Your task to perform on an android device: turn pop-ups on in chrome Image 0: 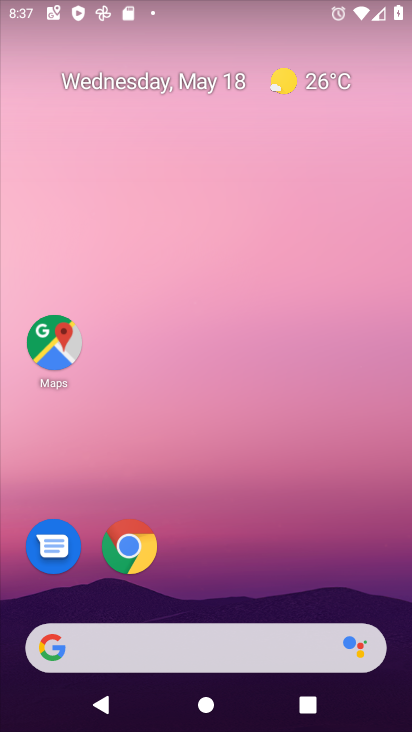
Step 0: drag from (352, 587) to (142, 0)
Your task to perform on an android device: turn pop-ups on in chrome Image 1: 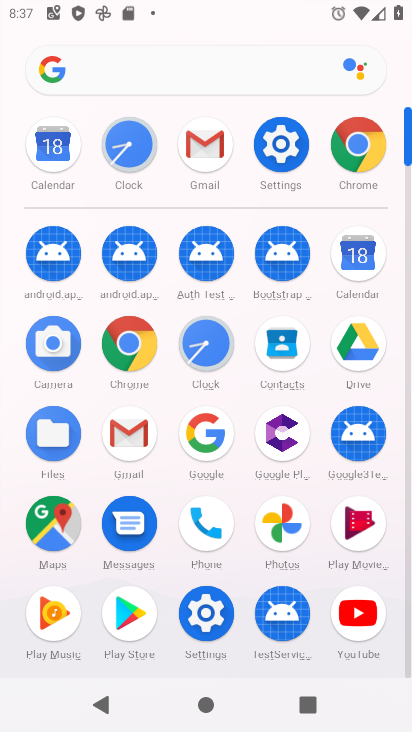
Step 1: click (129, 336)
Your task to perform on an android device: turn pop-ups on in chrome Image 2: 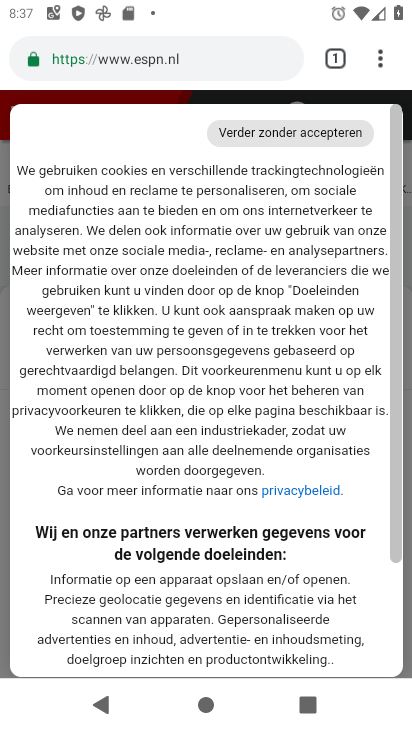
Step 2: press back button
Your task to perform on an android device: turn pop-ups on in chrome Image 3: 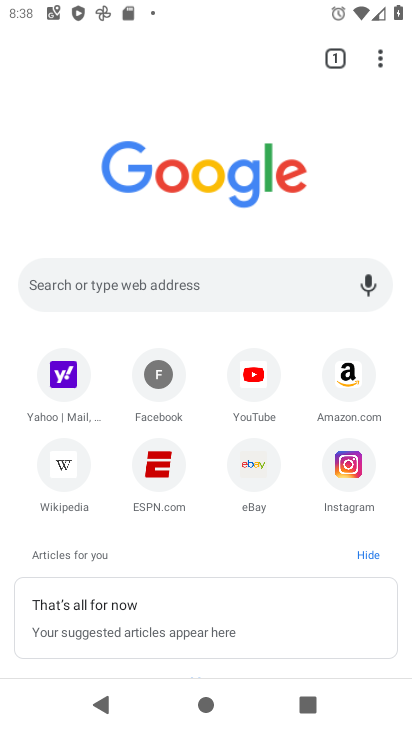
Step 3: click (378, 52)
Your task to perform on an android device: turn pop-ups on in chrome Image 4: 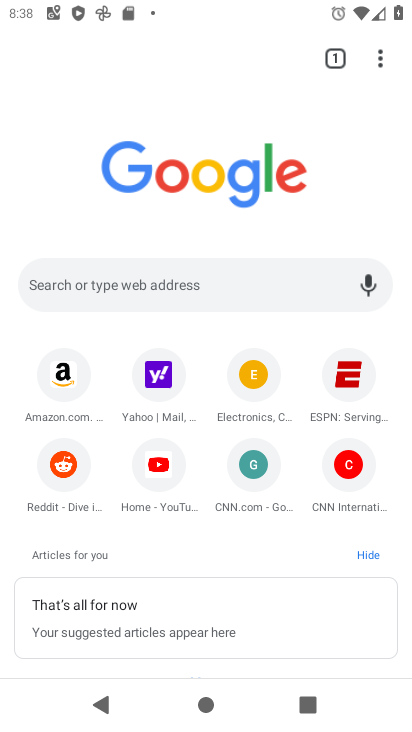
Step 4: click (385, 47)
Your task to perform on an android device: turn pop-ups on in chrome Image 5: 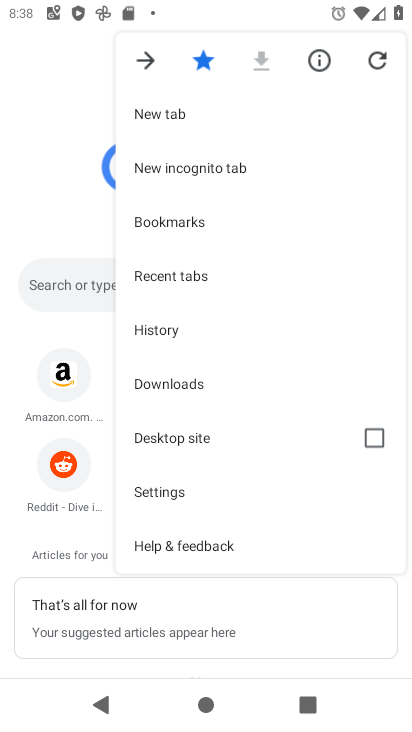
Step 5: click (165, 483)
Your task to perform on an android device: turn pop-ups on in chrome Image 6: 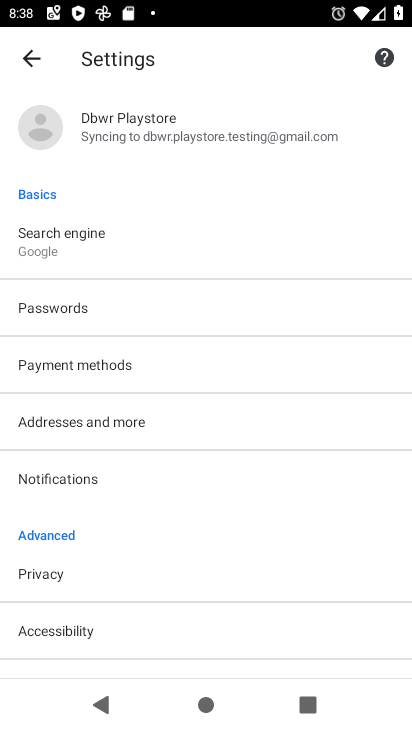
Step 6: drag from (98, 625) to (139, 236)
Your task to perform on an android device: turn pop-ups on in chrome Image 7: 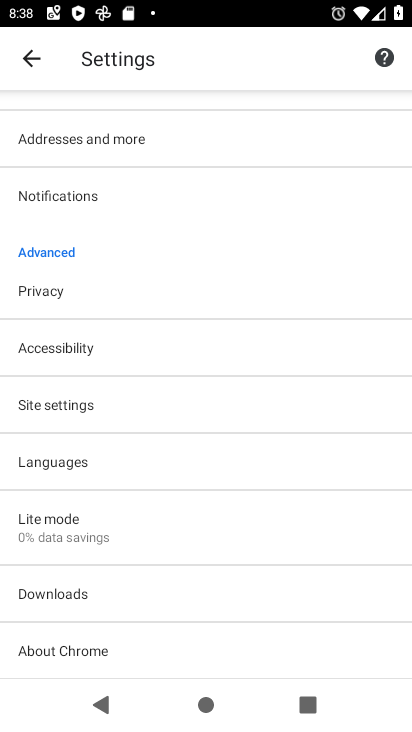
Step 7: click (121, 397)
Your task to perform on an android device: turn pop-ups on in chrome Image 8: 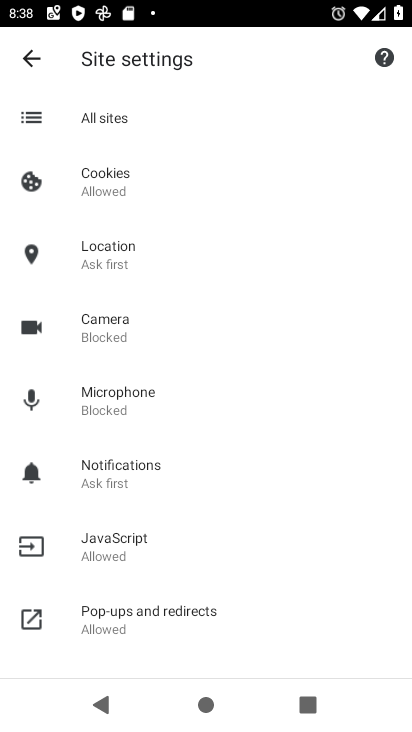
Step 8: click (118, 608)
Your task to perform on an android device: turn pop-ups on in chrome Image 9: 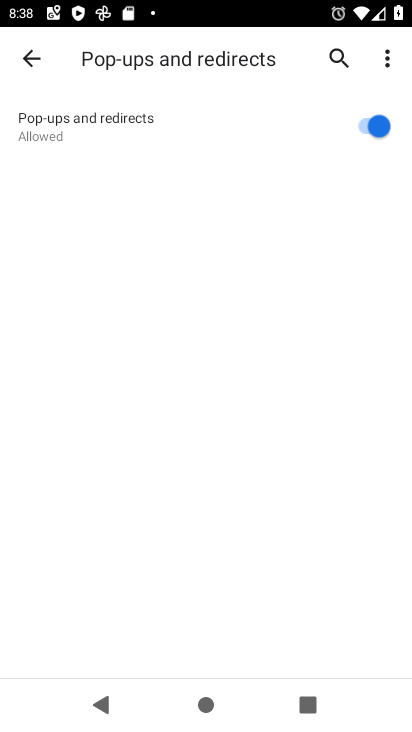
Step 9: task complete